Your task to perform on an android device: turn on data saver in the chrome app Image 0: 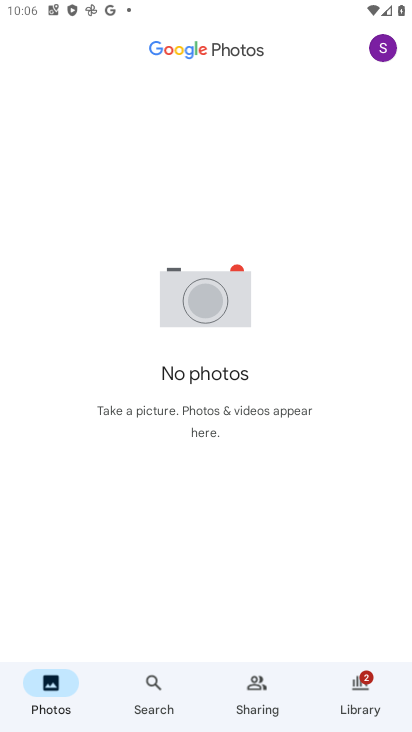
Step 0: press home button
Your task to perform on an android device: turn on data saver in the chrome app Image 1: 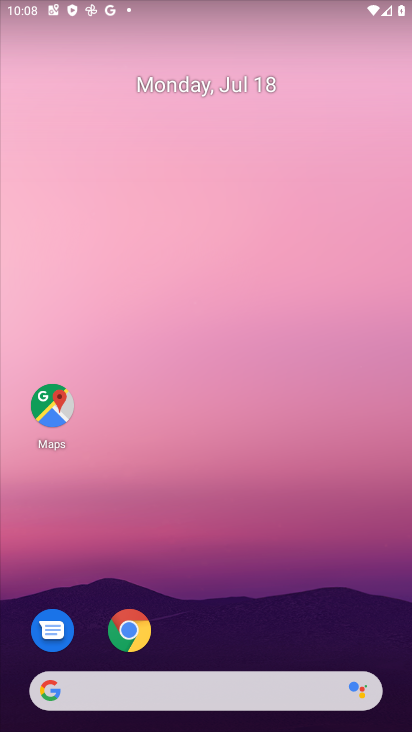
Step 1: drag from (345, 631) to (208, 23)
Your task to perform on an android device: turn on data saver in the chrome app Image 2: 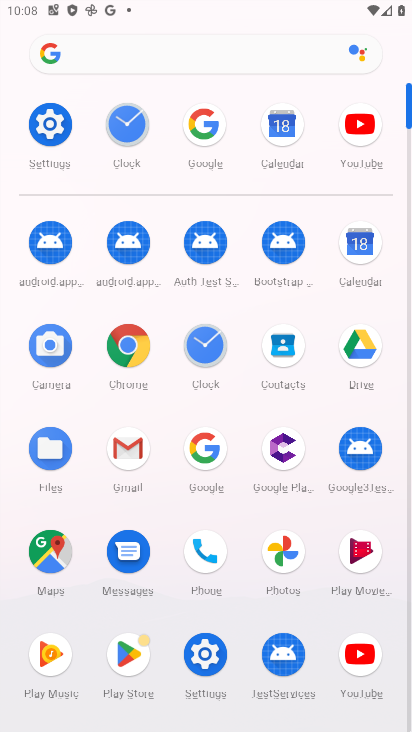
Step 2: click (126, 351)
Your task to perform on an android device: turn on data saver in the chrome app Image 3: 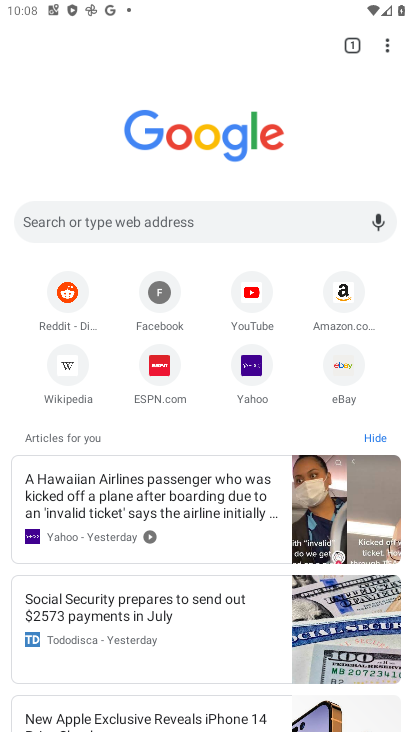
Step 3: click (389, 42)
Your task to perform on an android device: turn on data saver in the chrome app Image 4: 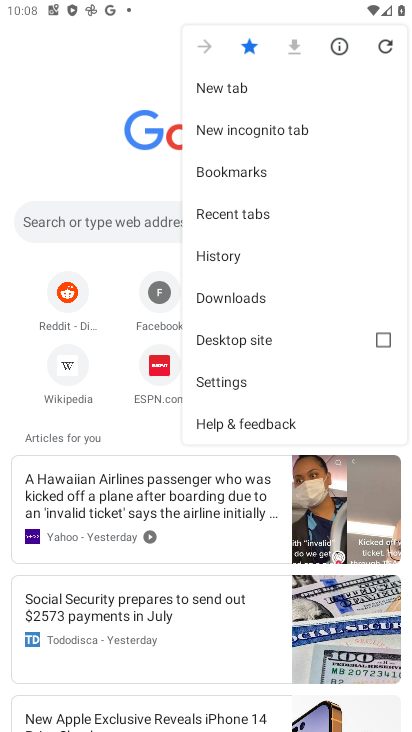
Step 4: click (210, 382)
Your task to perform on an android device: turn on data saver in the chrome app Image 5: 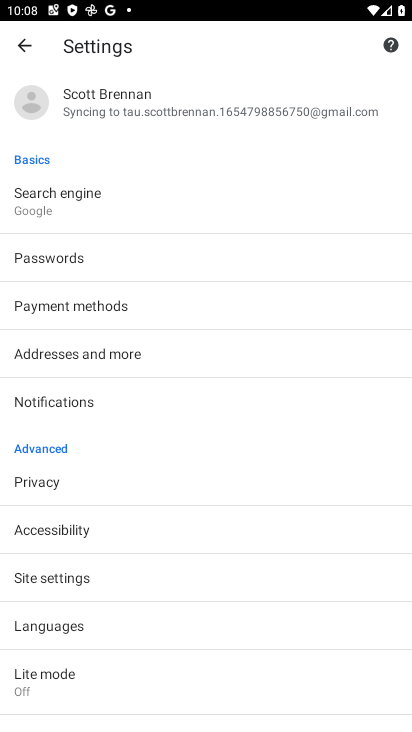
Step 5: click (67, 692)
Your task to perform on an android device: turn on data saver in the chrome app Image 6: 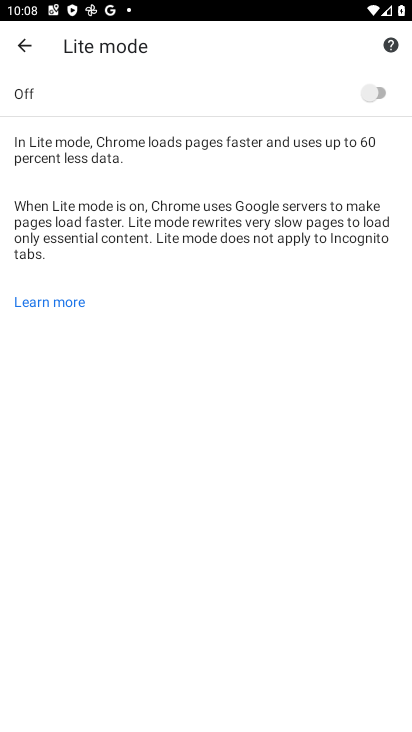
Step 6: click (352, 111)
Your task to perform on an android device: turn on data saver in the chrome app Image 7: 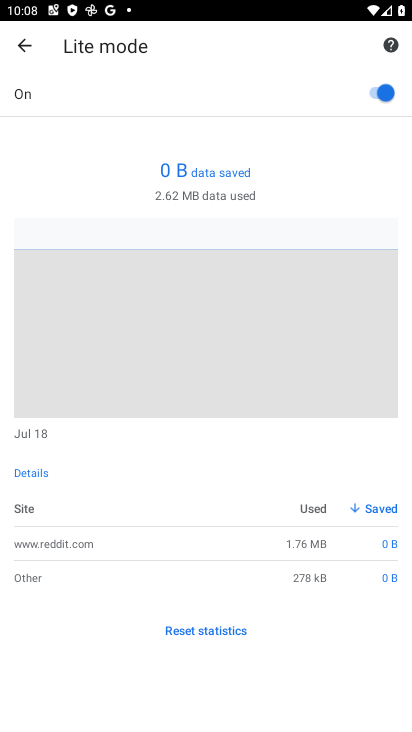
Step 7: task complete